Your task to perform on an android device: set the timer Image 0: 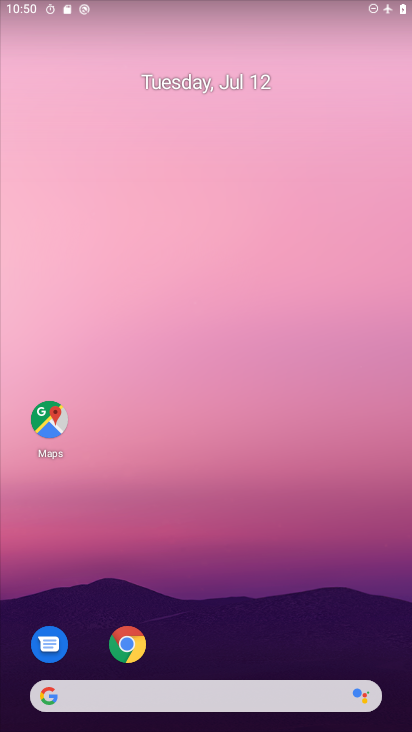
Step 0: drag from (214, 652) to (195, 158)
Your task to perform on an android device: set the timer Image 1: 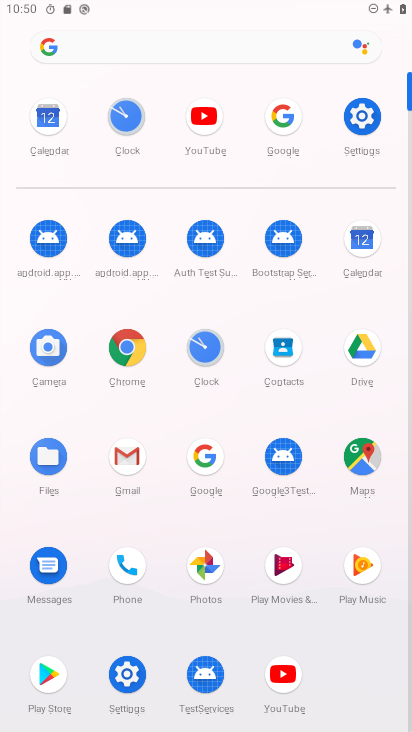
Step 1: click (103, 119)
Your task to perform on an android device: set the timer Image 2: 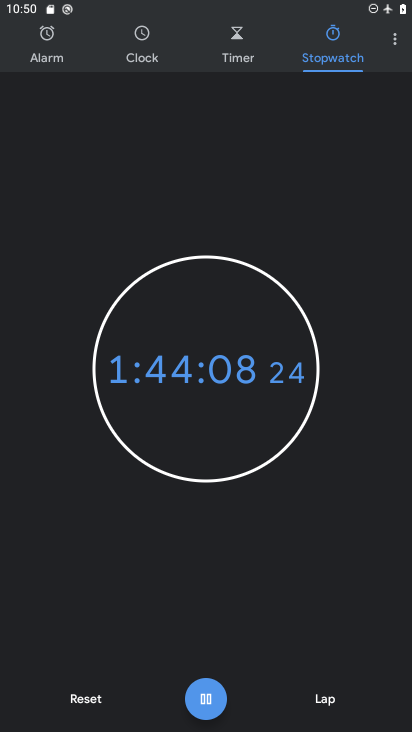
Step 2: click (241, 44)
Your task to perform on an android device: set the timer Image 3: 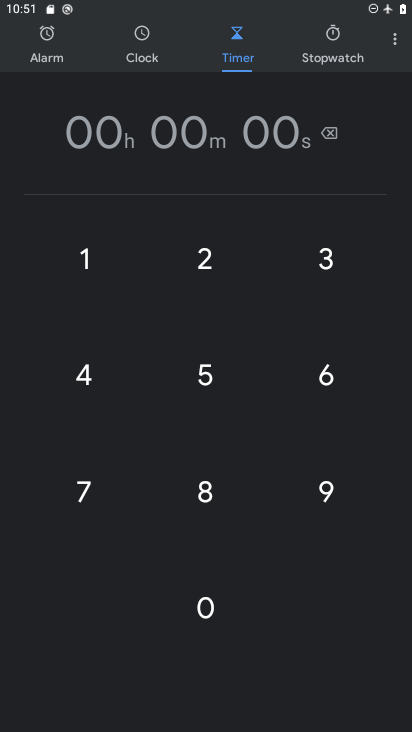
Step 3: type "11"
Your task to perform on an android device: set the timer Image 4: 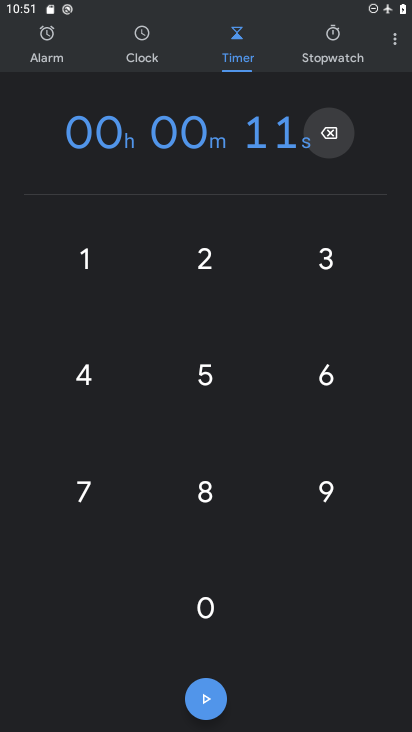
Step 4: click (214, 714)
Your task to perform on an android device: set the timer Image 5: 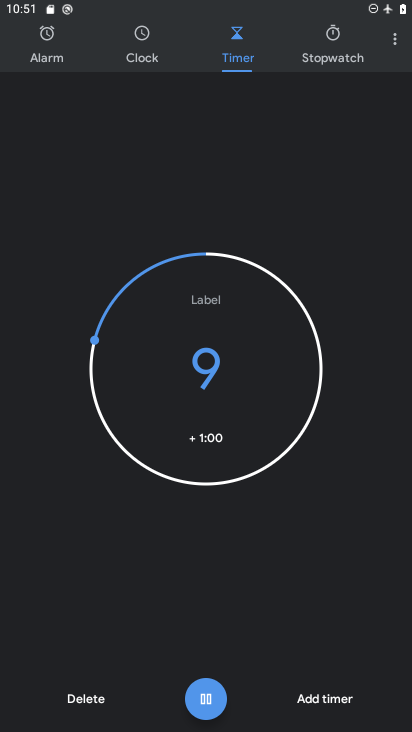
Step 5: task complete